Your task to perform on an android device: turn notification dots off Image 0: 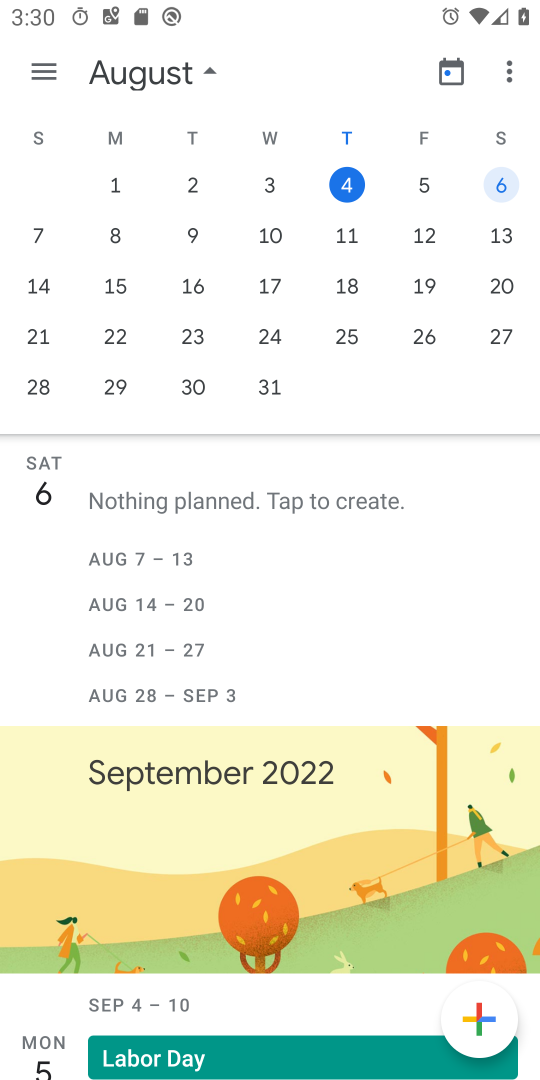
Step 0: press home button
Your task to perform on an android device: turn notification dots off Image 1: 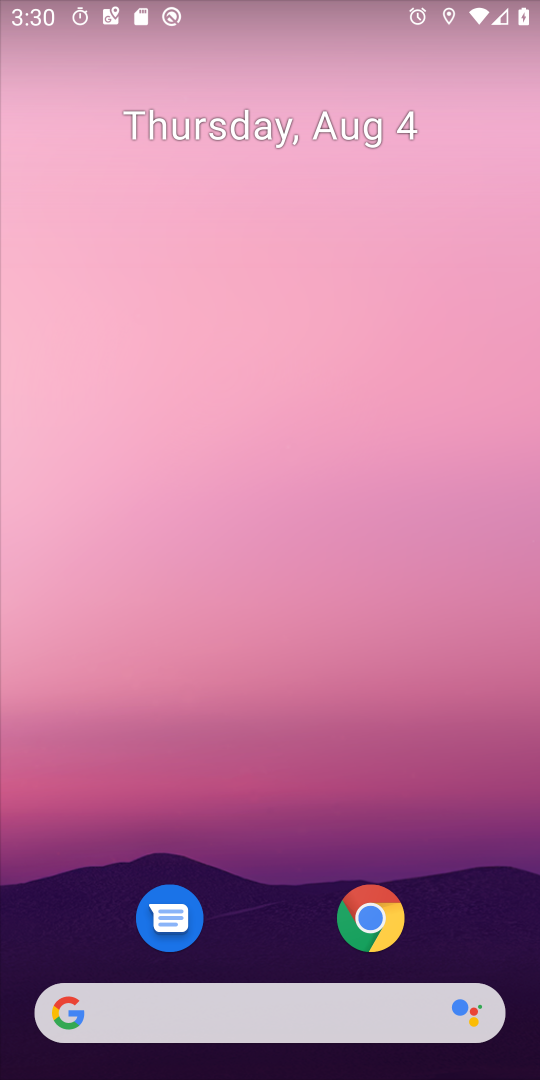
Step 1: drag from (272, 919) to (266, 400)
Your task to perform on an android device: turn notification dots off Image 2: 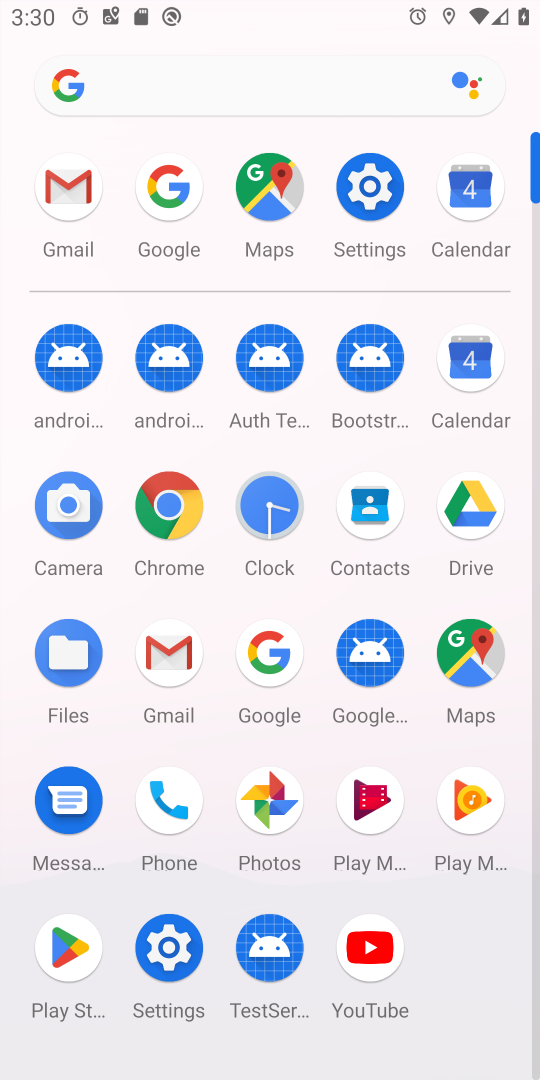
Step 2: click (359, 198)
Your task to perform on an android device: turn notification dots off Image 3: 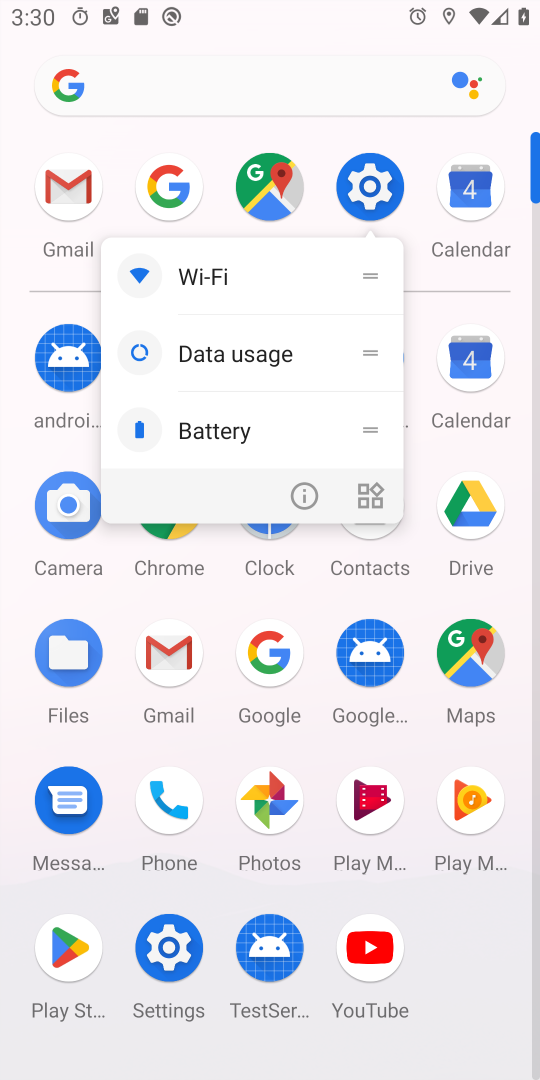
Step 3: click (359, 198)
Your task to perform on an android device: turn notification dots off Image 4: 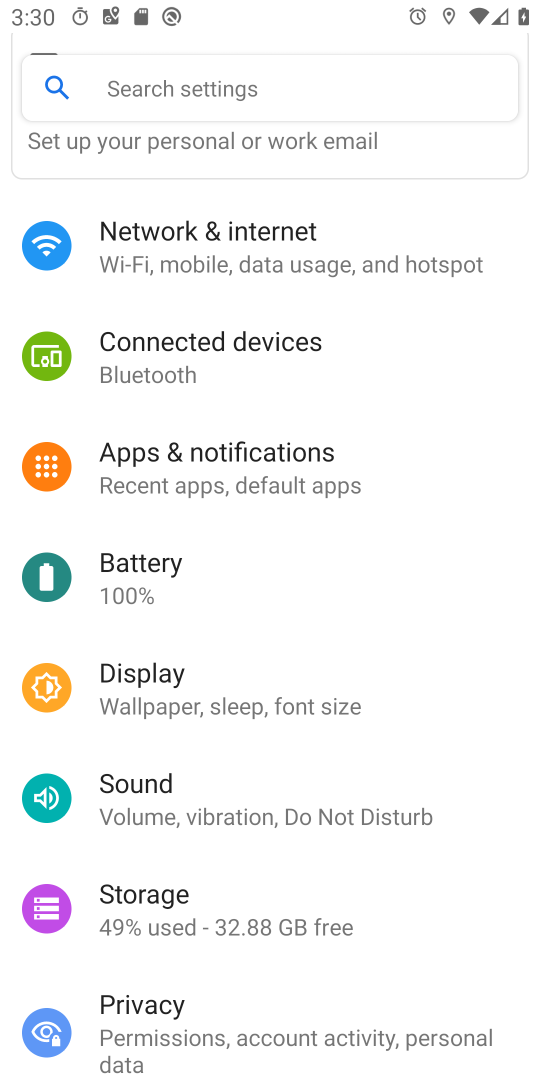
Step 4: click (329, 440)
Your task to perform on an android device: turn notification dots off Image 5: 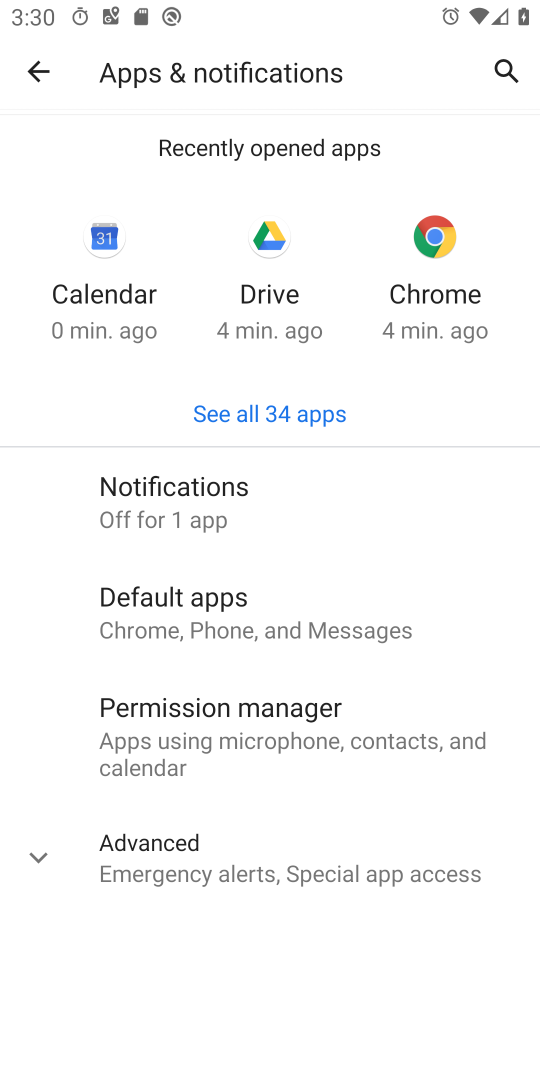
Step 5: click (211, 510)
Your task to perform on an android device: turn notification dots off Image 6: 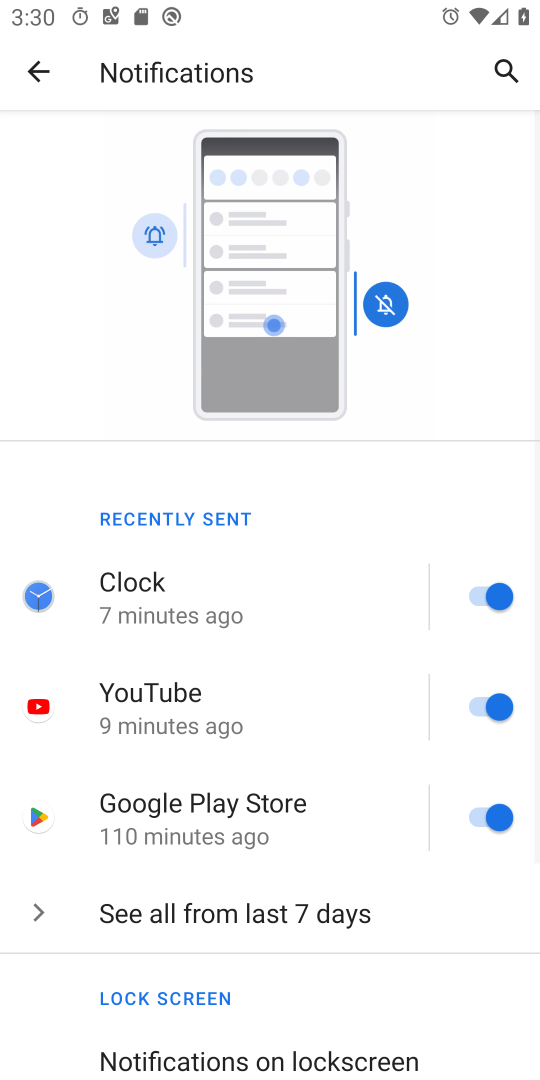
Step 6: drag from (280, 867) to (242, 460)
Your task to perform on an android device: turn notification dots off Image 7: 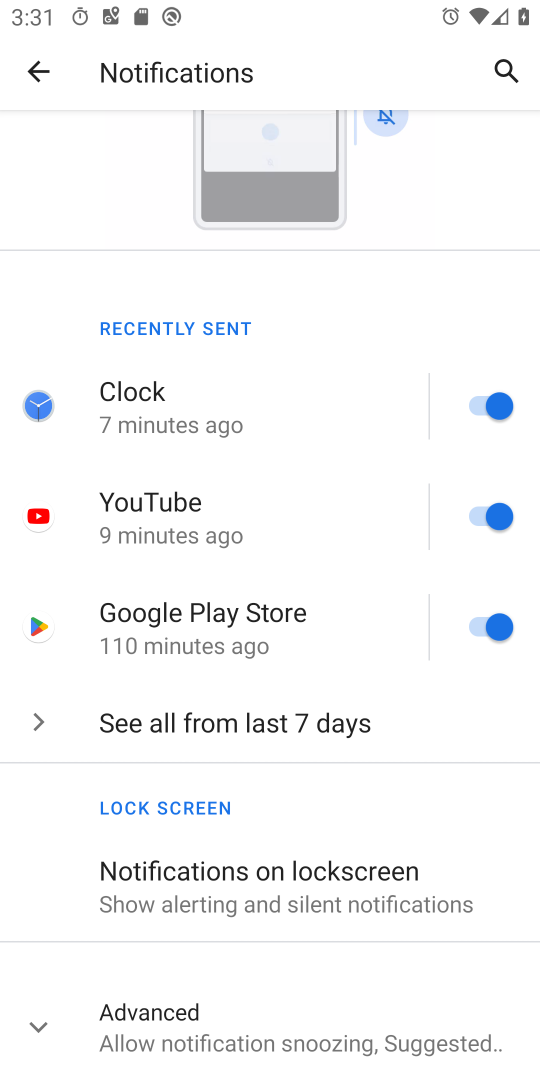
Step 7: click (285, 1029)
Your task to perform on an android device: turn notification dots off Image 8: 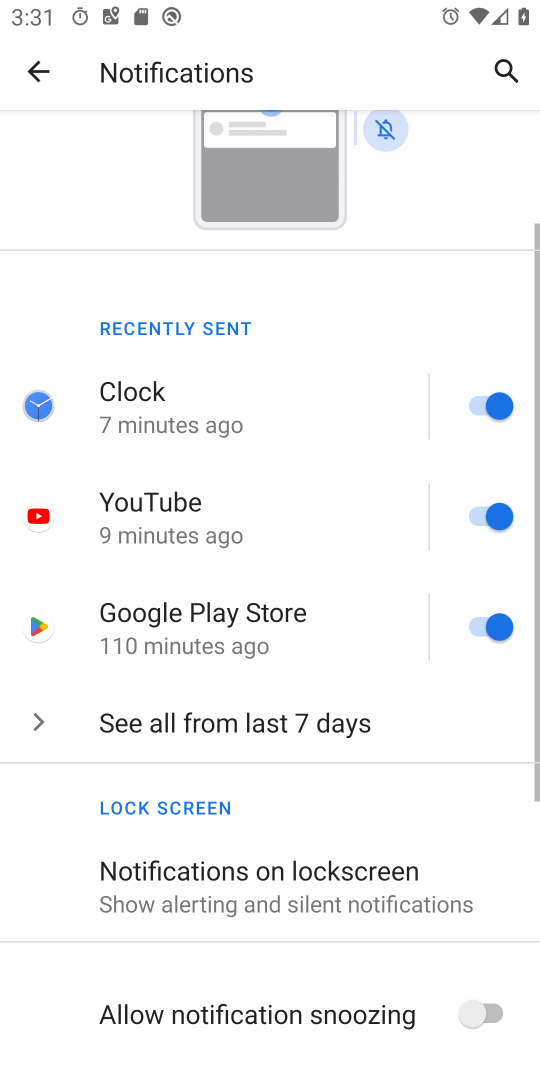
Step 8: drag from (295, 751) to (300, 526)
Your task to perform on an android device: turn notification dots off Image 9: 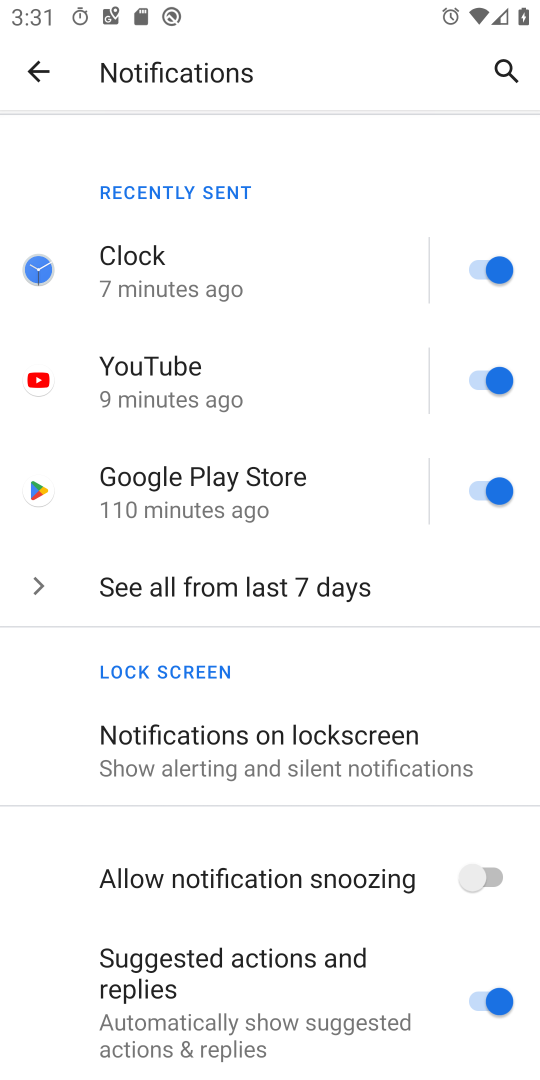
Step 9: drag from (379, 1017) to (379, 618)
Your task to perform on an android device: turn notification dots off Image 10: 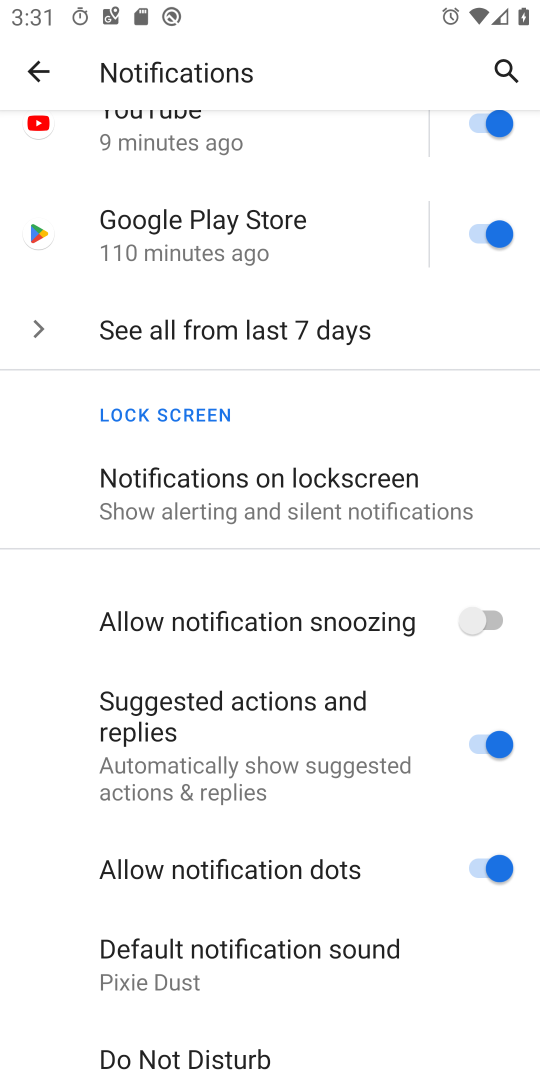
Step 10: click (450, 850)
Your task to perform on an android device: turn notification dots off Image 11: 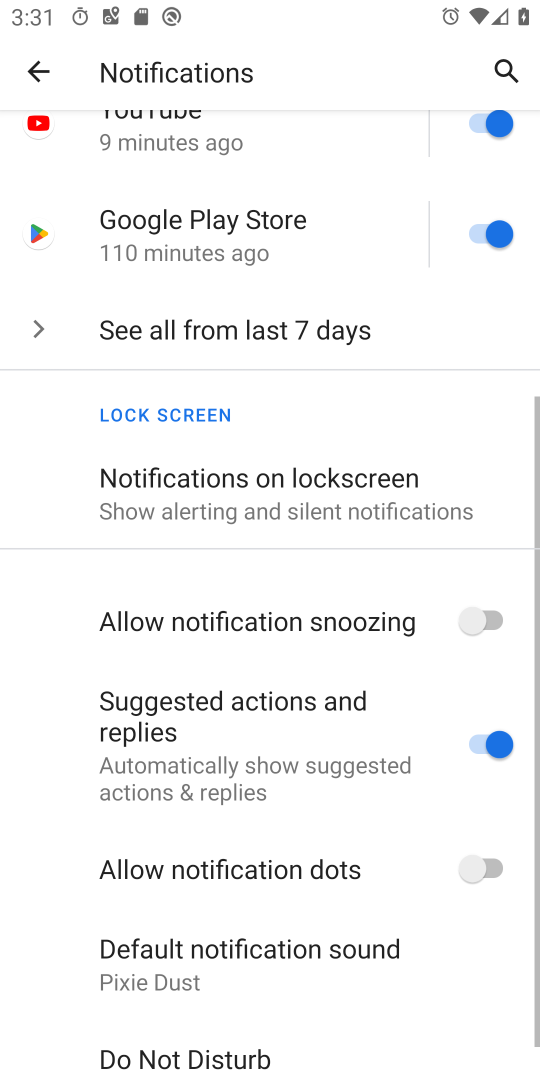
Step 11: task complete